Your task to perform on an android device: allow cookies in the chrome app Image 0: 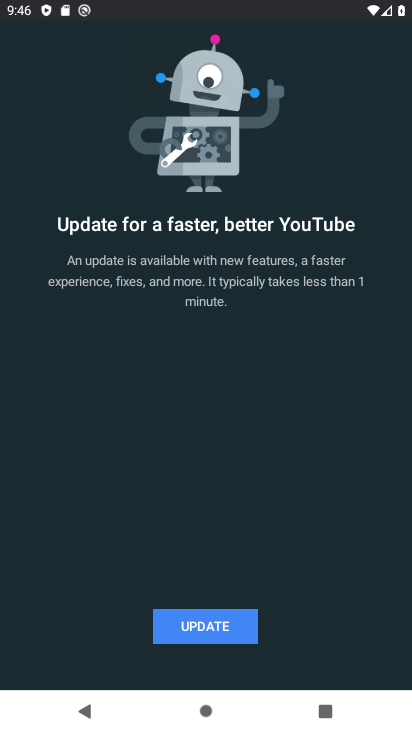
Step 0: press back button
Your task to perform on an android device: allow cookies in the chrome app Image 1: 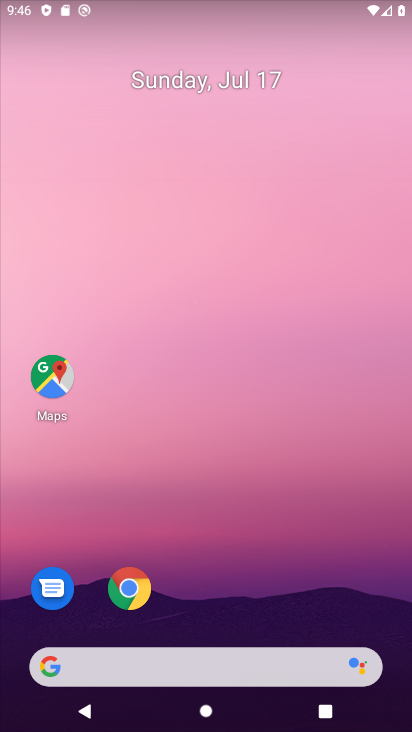
Step 1: click (138, 588)
Your task to perform on an android device: allow cookies in the chrome app Image 2: 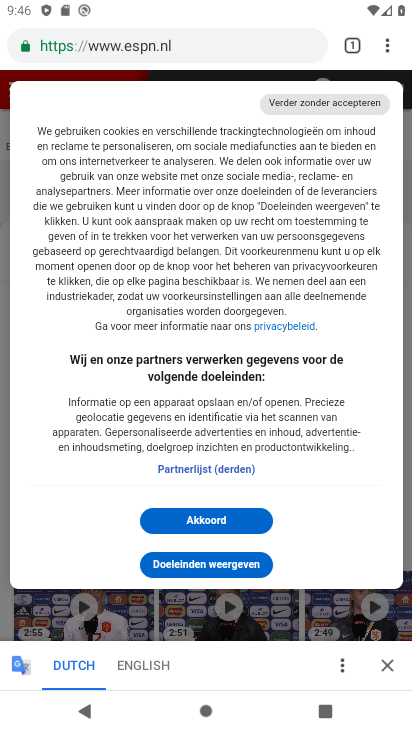
Step 2: drag from (383, 42) to (243, 550)
Your task to perform on an android device: allow cookies in the chrome app Image 3: 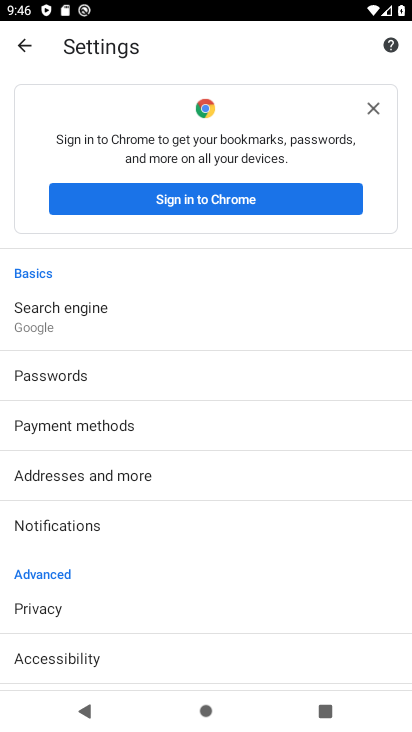
Step 3: drag from (237, 559) to (204, 189)
Your task to perform on an android device: allow cookies in the chrome app Image 4: 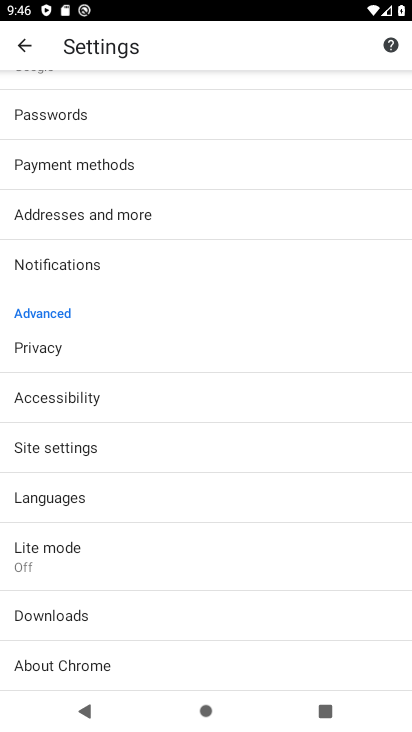
Step 4: click (49, 442)
Your task to perform on an android device: allow cookies in the chrome app Image 5: 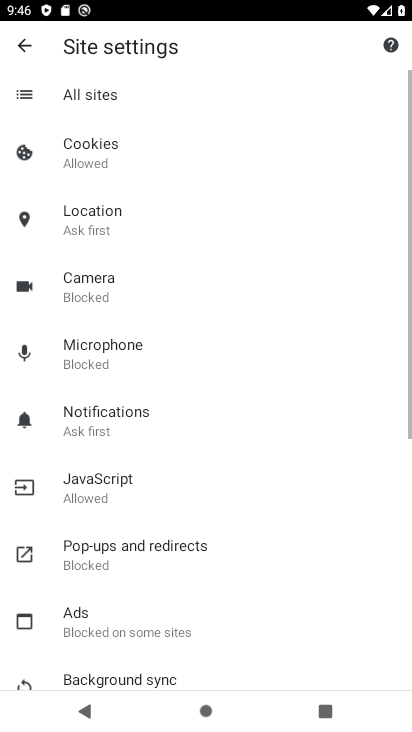
Step 5: click (97, 161)
Your task to perform on an android device: allow cookies in the chrome app Image 6: 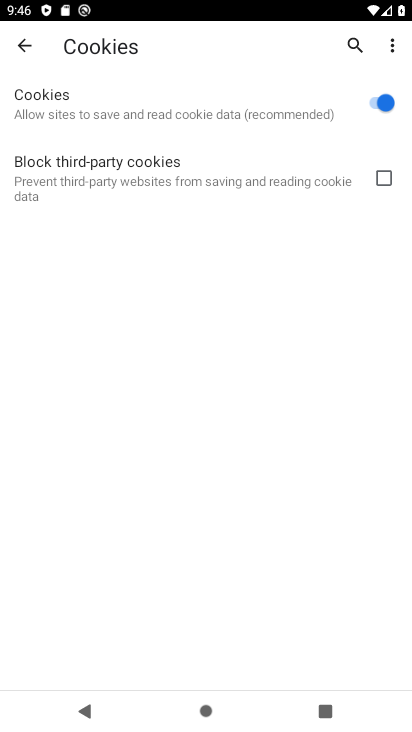
Step 6: task complete